Your task to perform on an android device: search for starred emails in the gmail app Image 0: 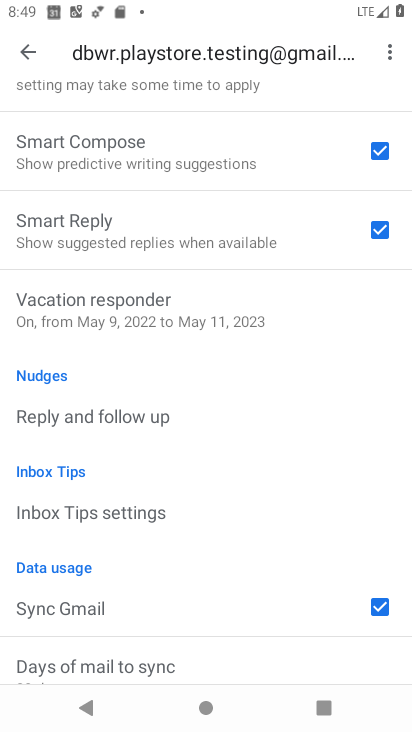
Step 0: drag from (264, 441) to (264, 184)
Your task to perform on an android device: search for starred emails in the gmail app Image 1: 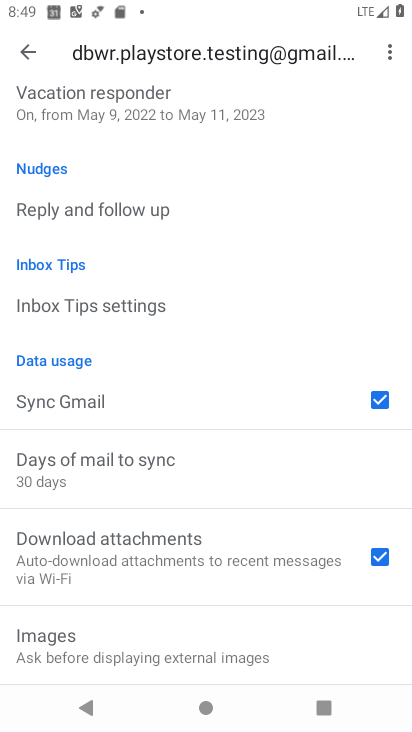
Step 1: drag from (215, 593) to (251, 257)
Your task to perform on an android device: search for starred emails in the gmail app Image 2: 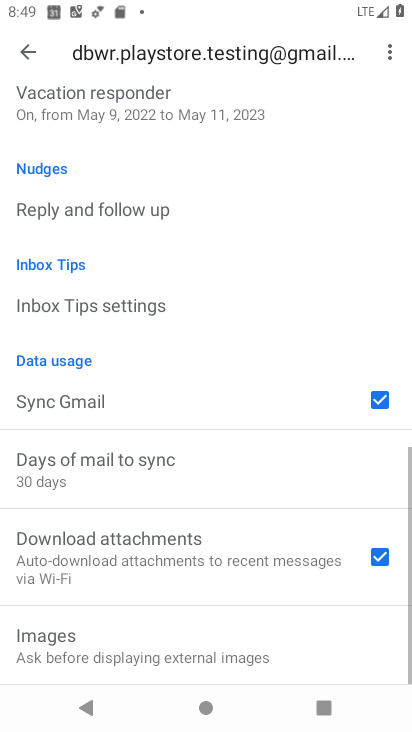
Step 2: drag from (231, 158) to (266, 699)
Your task to perform on an android device: search for starred emails in the gmail app Image 3: 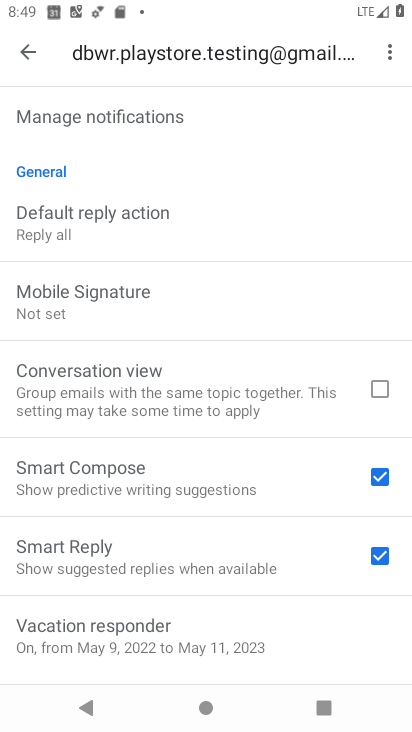
Step 3: drag from (212, 311) to (245, 729)
Your task to perform on an android device: search for starred emails in the gmail app Image 4: 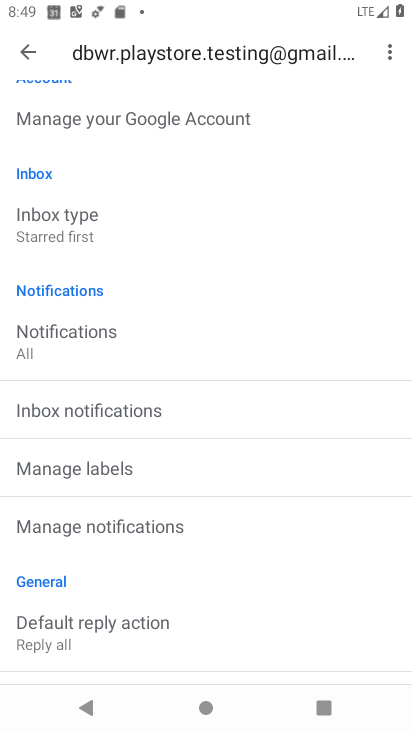
Step 4: drag from (169, 274) to (238, 731)
Your task to perform on an android device: search for starred emails in the gmail app Image 5: 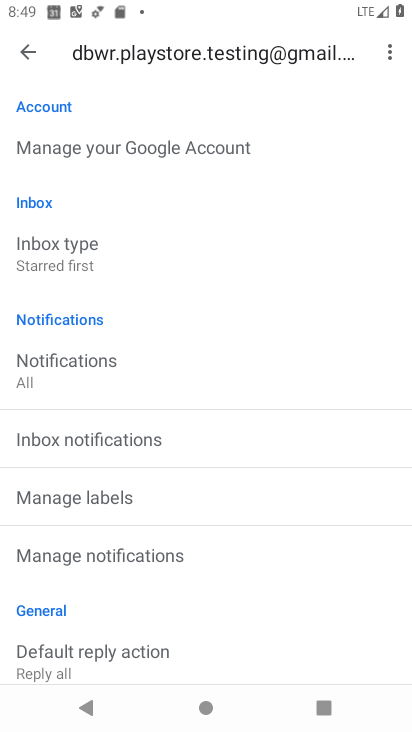
Step 5: drag from (219, 366) to (234, 651)
Your task to perform on an android device: search for starred emails in the gmail app Image 6: 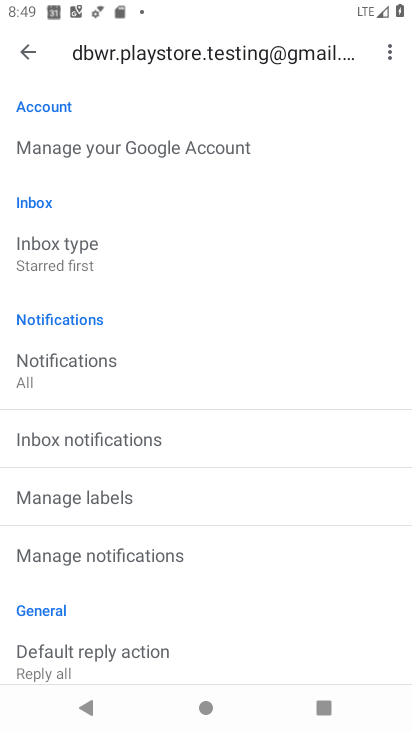
Step 6: press back button
Your task to perform on an android device: search for starred emails in the gmail app Image 7: 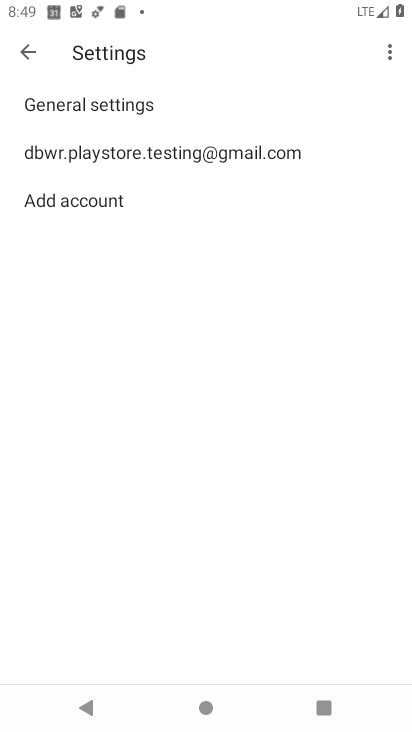
Step 7: press back button
Your task to perform on an android device: search for starred emails in the gmail app Image 8: 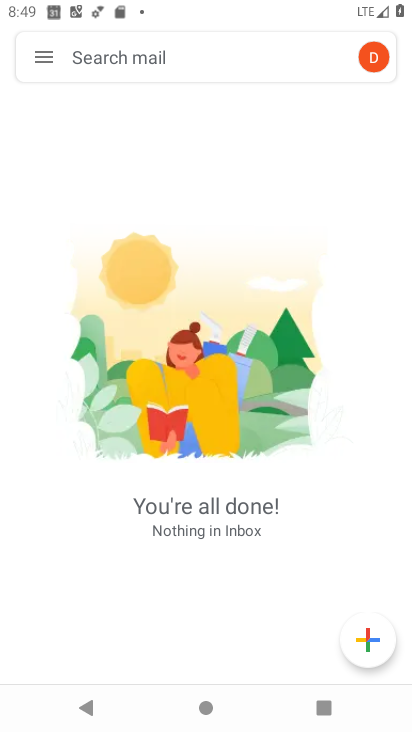
Step 8: click (41, 52)
Your task to perform on an android device: search for starred emails in the gmail app Image 9: 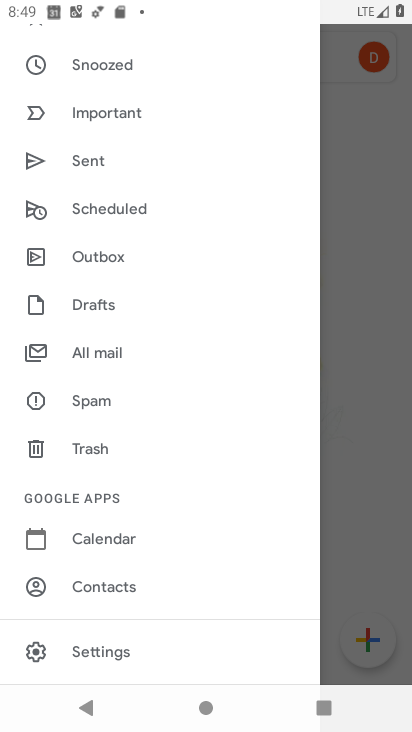
Step 9: drag from (129, 187) to (218, 573)
Your task to perform on an android device: search for starred emails in the gmail app Image 10: 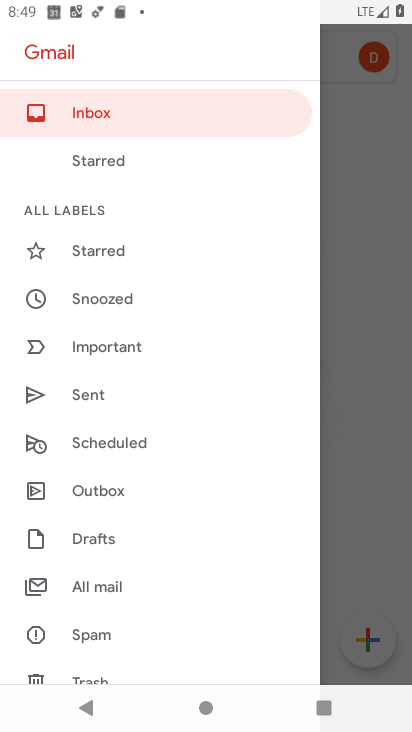
Step 10: click (114, 255)
Your task to perform on an android device: search for starred emails in the gmail app Image 11: 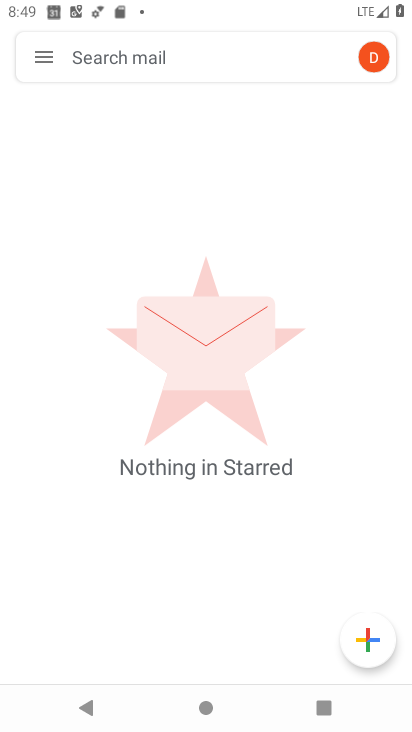
Step 11: task complete